Your task to perform on an android device: move a message to another label in the gmail app Image 0: 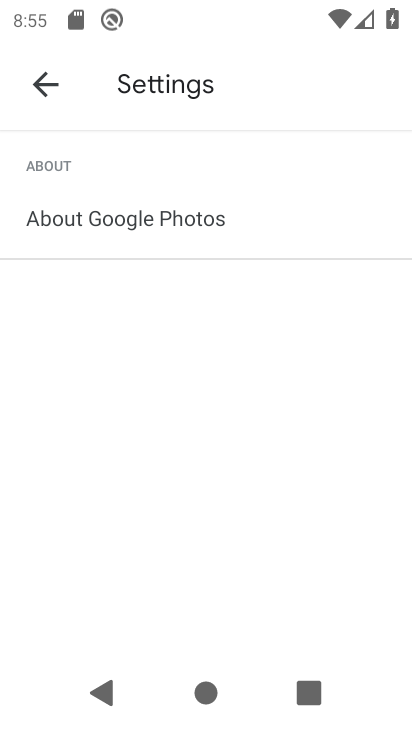
Step 0: press home button
Your task to perform on an android device: move a message to another label in the gmail app Image 1: 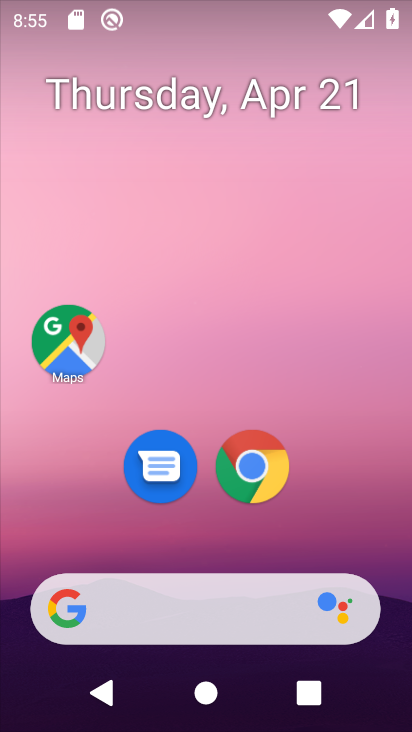
Step 1: drag from (347, 434) to (357, 169)
Your task to perform on an android device: move a message to another label in the gmail app Image 2: 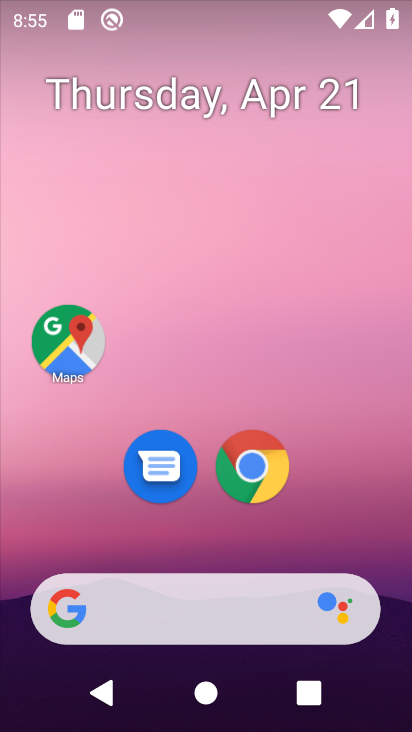
Step 2: drag from (287, 467) to (306, 63)
Your task to perform on an android device: move a message to another label in the gmail app Image 3: 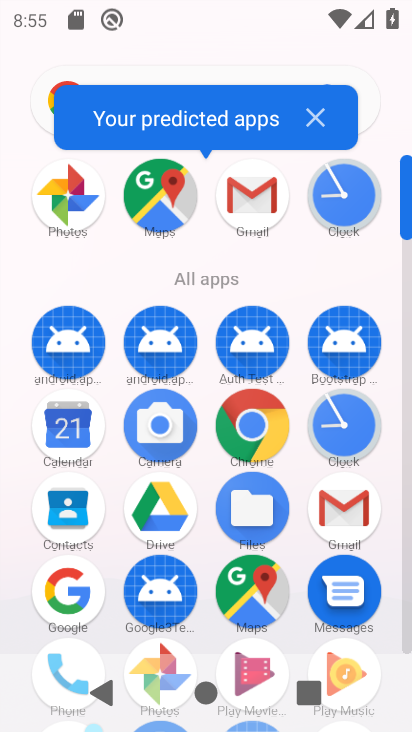
Step 3: click (247, 214)
Your task to perform on an android device: move a message to another label in the gmail app Image 4: 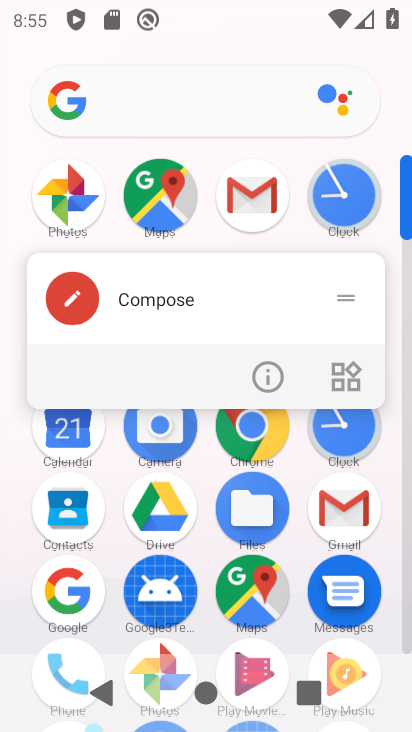
Step 4: click (253, 192)
Your task to perform on an android device: move a message to another label in the gmail app Image 5: 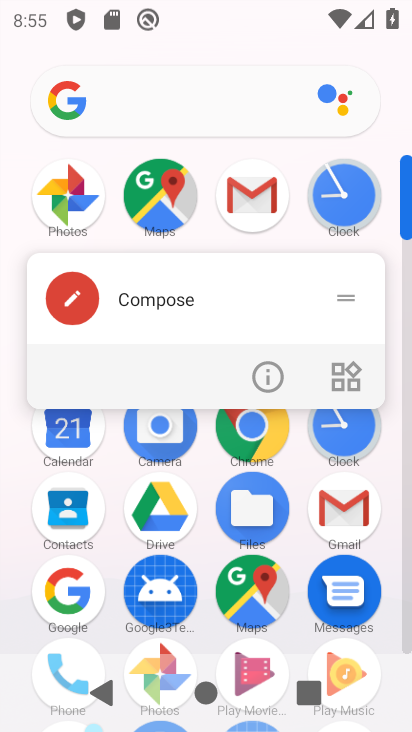
Step 5: click (253, 202)
Your task to perform on an android device: move a message to another label in the gmail app Image 6: 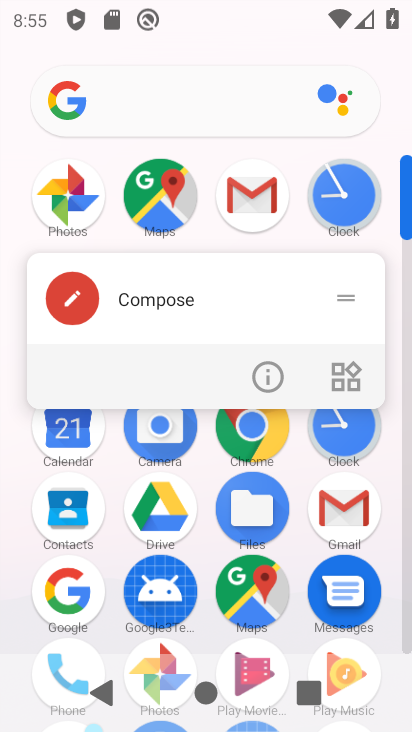
Step 6: click (258, 196)
Your task to perform on an android device: move a message to another label in the gmail app Image 7: 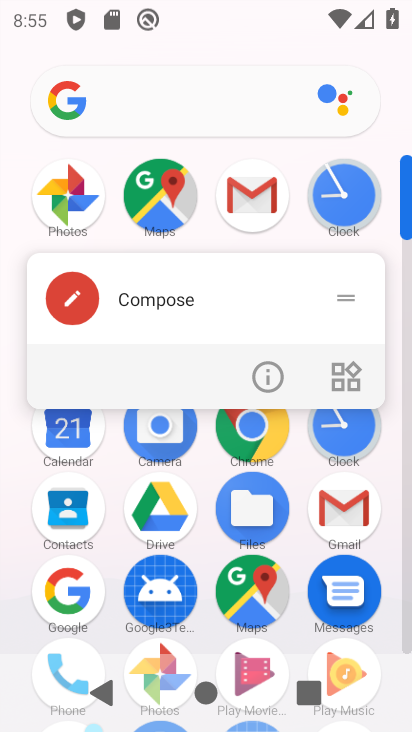
Step 7: click (259, 199)
Your task to perform on an android device: move a message to another label in the gmail app Image 8: 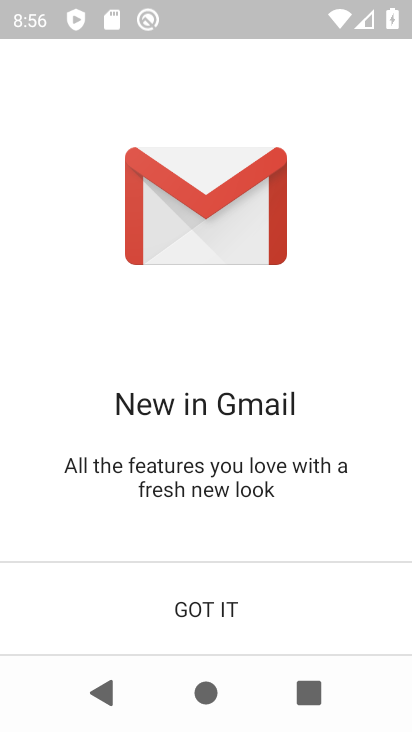
Step 8: click (197, 605)
Your task to perform on an android device: move a message to another label in the gmail app Image 9: 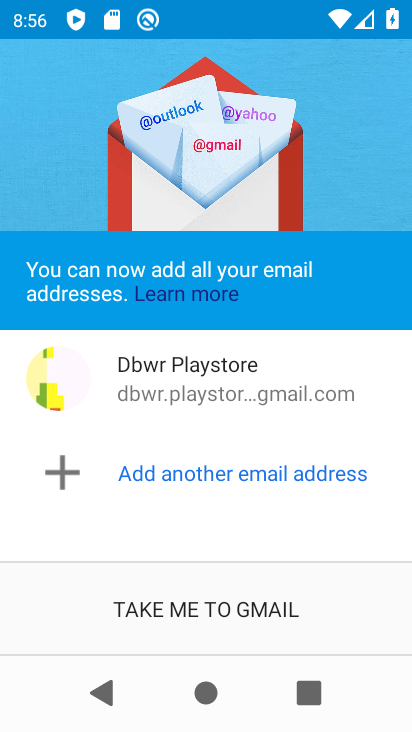
Step 9: click (251, 622)
Your task to perform on an android device: move a message to another label in the gmail app Image 10: 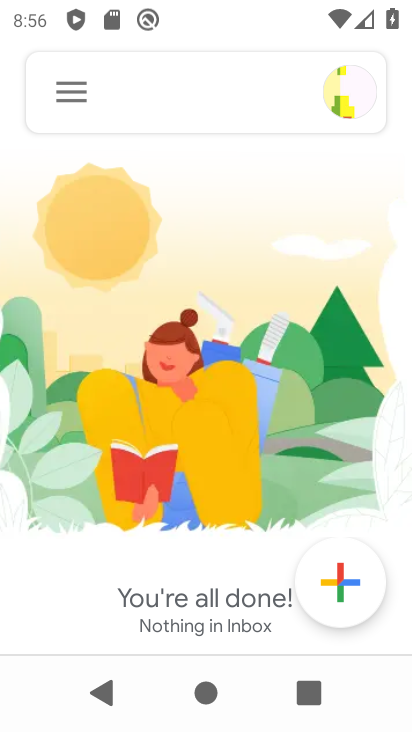
Step 10: task complete